Your task to perform on an android device: add a contact in the contacts app Image 0: 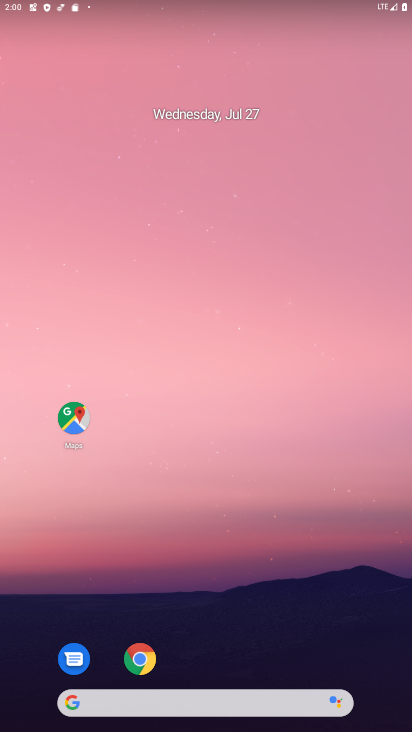
Step 0: drag from (205, 724) to (205, 112)
Your task to perform on an android device: add a contact in the contacts app Image 1: 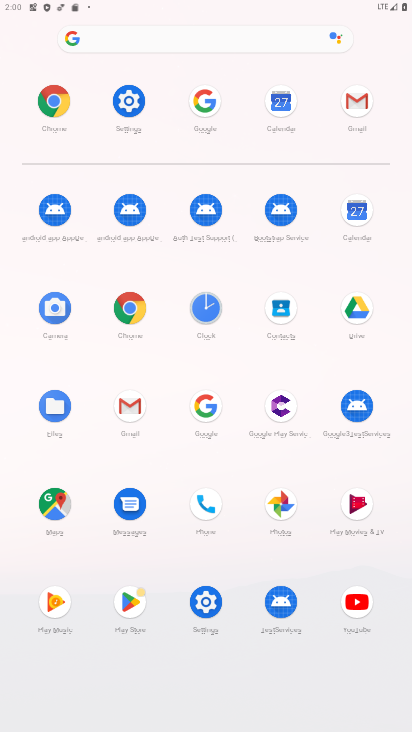
Step 1: click (281, 305)
Your task to perform on an android device: add a contact in the contacts app Image 2: 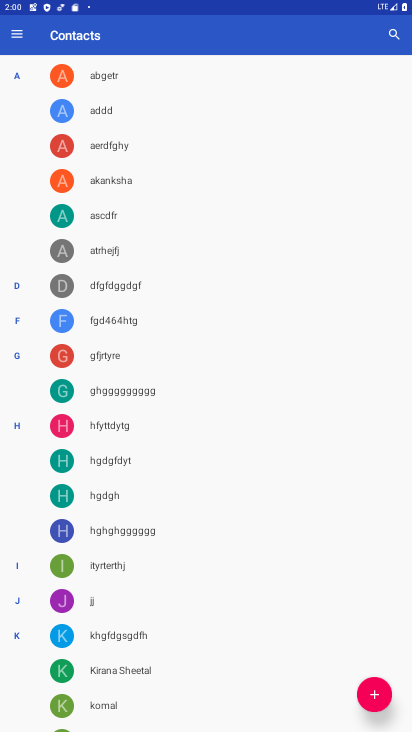
Step 2: click (382, 695)
Your task to perform on an android device: add a contact in the contacts app Image 3: 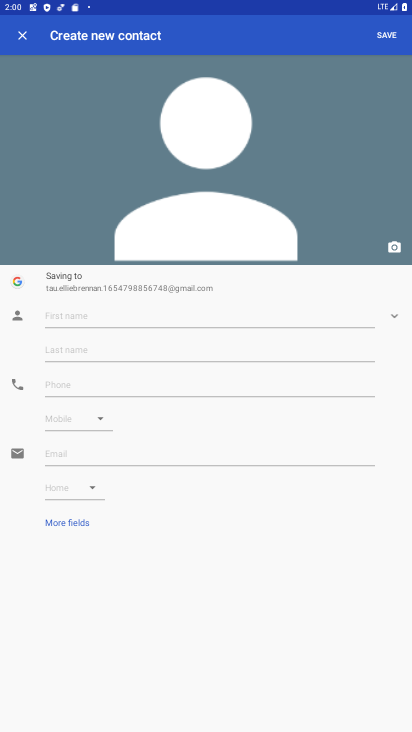
Step 3: click (136, 315)
Your task to perform on an android device: add a contact in the contacts app Image 4: 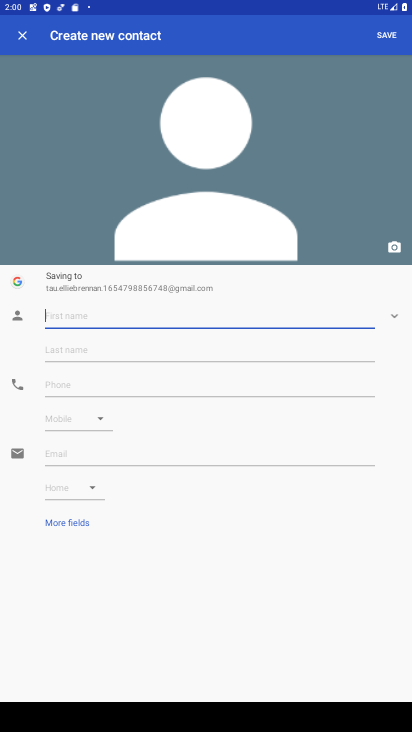
Step 4: type "bhagath singh"
Your task to perform on an android device: add a contact in the contacts app Image 5: 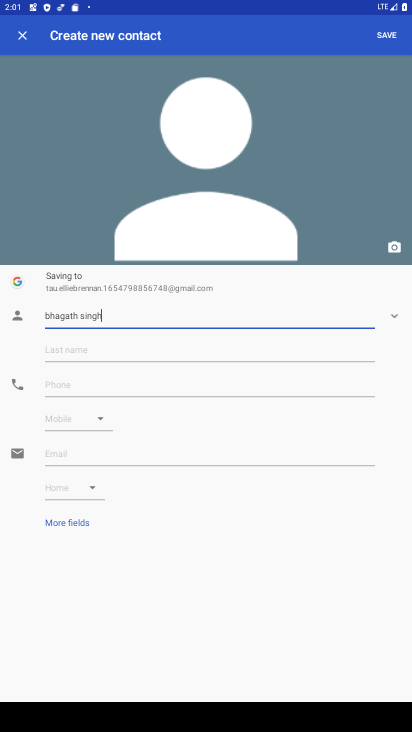
Step 5: click (388, 36)
Your task to perform on an android device: add a contact in the contacts app Image 6: 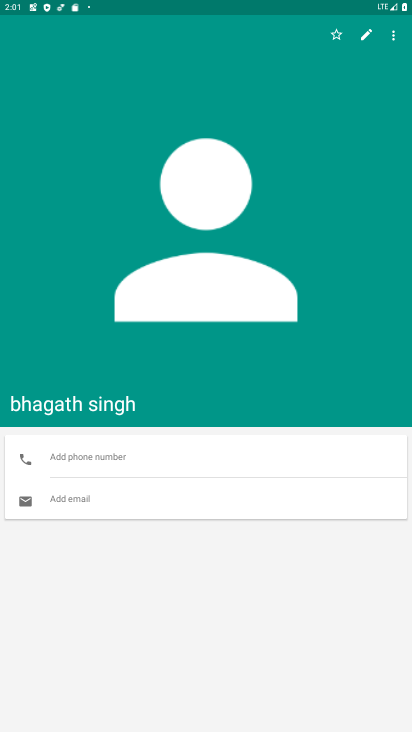
Step 6: task complete